Your task to perform on an android device: check the backup settings in the google photos Image 0: 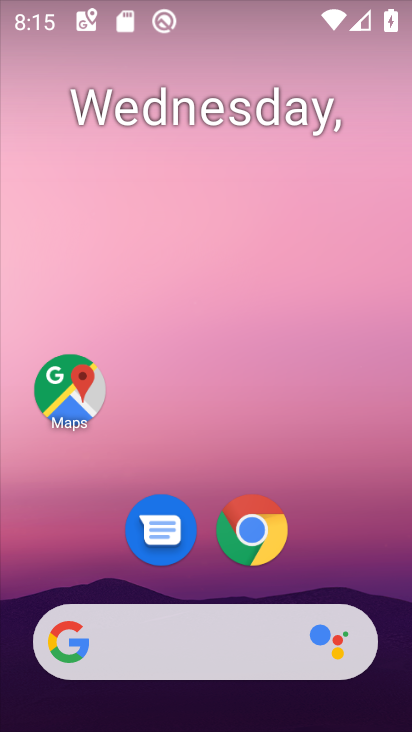
Step 0: drag from (397, 632) to (209, 31)
Your task to perform on an android device: check the backup settings in the google photos Image 1: 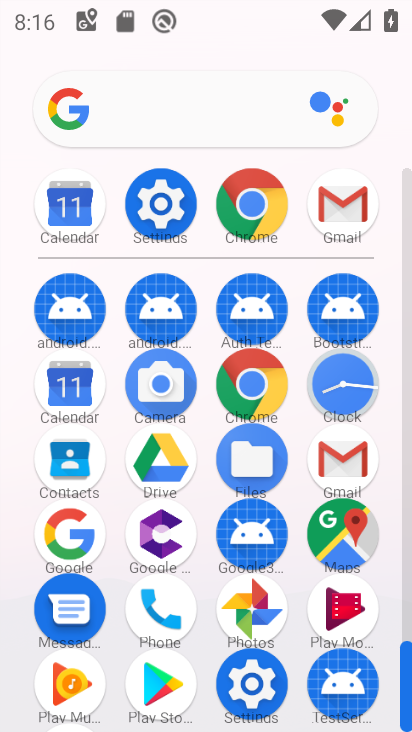
Step 1: click (248, 610)
Your task to perform on an android device: check the backup settings in the google photos Image 2: 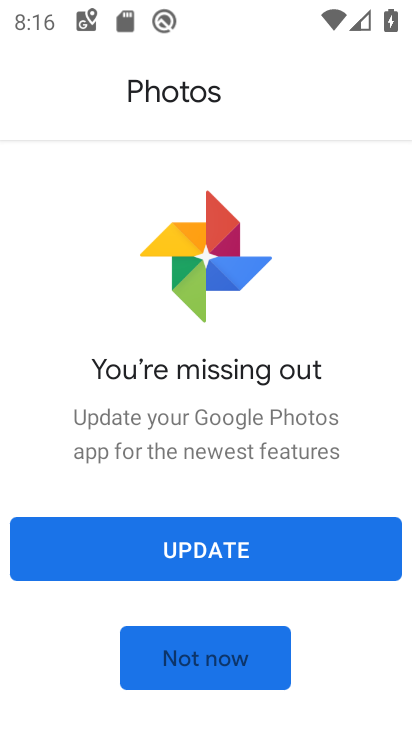
Step 2: click (216, 559)
Your task to perform on an android device: check the backup settings in the google photos Image 3: 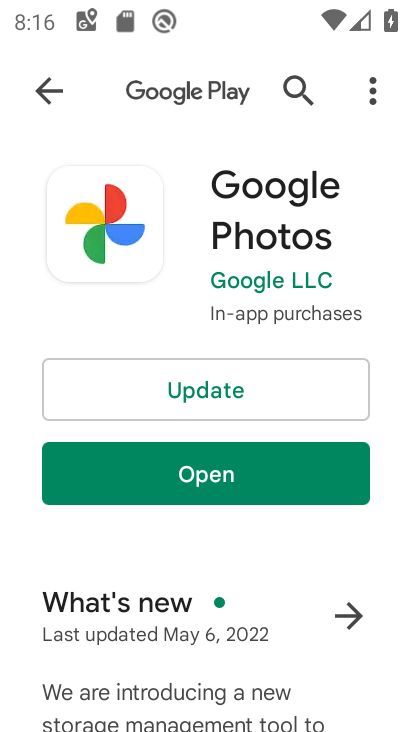
Step 3: click (184, 412)
Your task to perform on an android device: check the backup settings in the google photos Image 4: 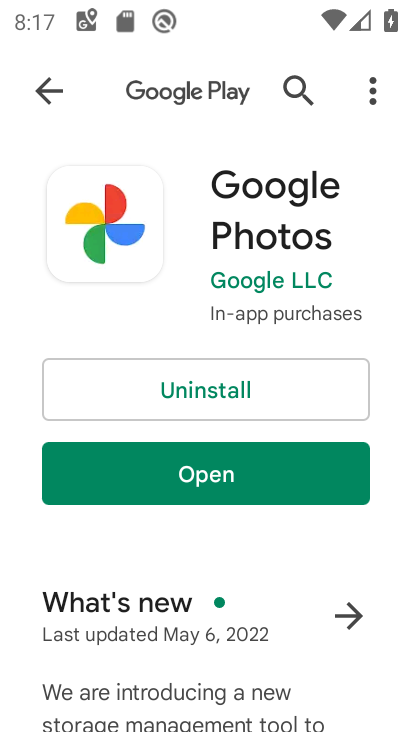
Step 4: click (158, 468)
Your task to perform on an android device: check the backup settings in the google photos Image 5: 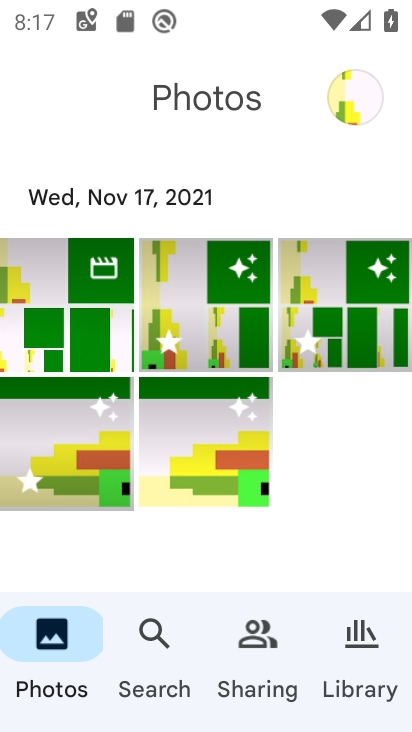
Step 5: click (352, 75)
Your task to perform on an android device: check the backup settings in the google photos Image 6: 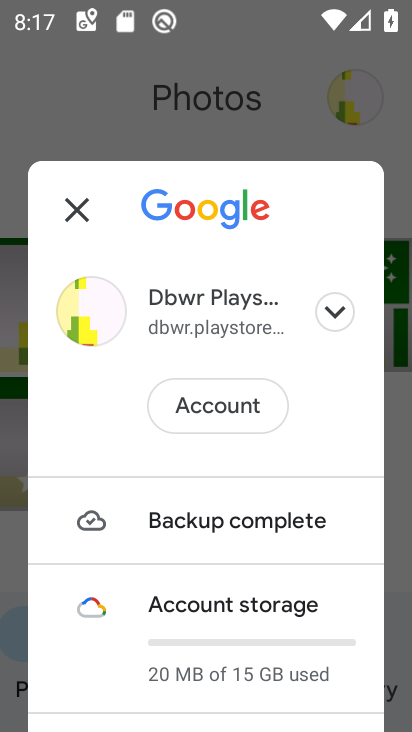
Step 6: click (199, 524)
Your task to perform on an android device: check the backup settings in the google photos Image 7: 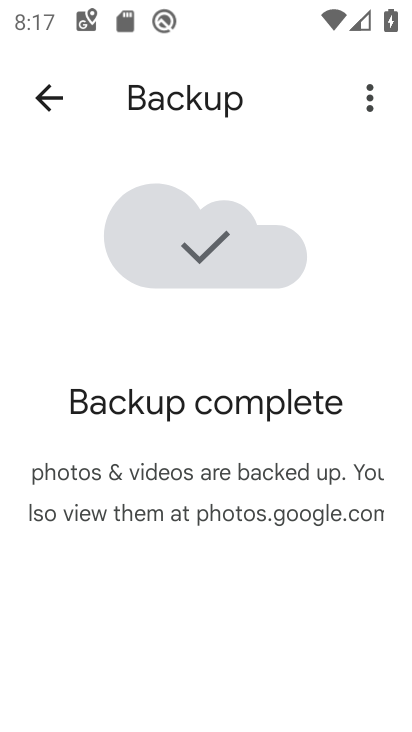
Step 7: task complete